Your task to perform on an android device: turn off location Image 0: 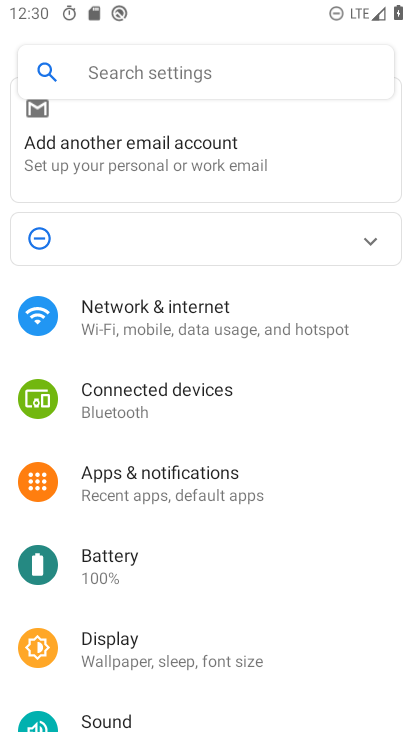
Step 0: drag from (238, 602) to (284, 288)
Your task to perform on an android device: turn off location Image 1: 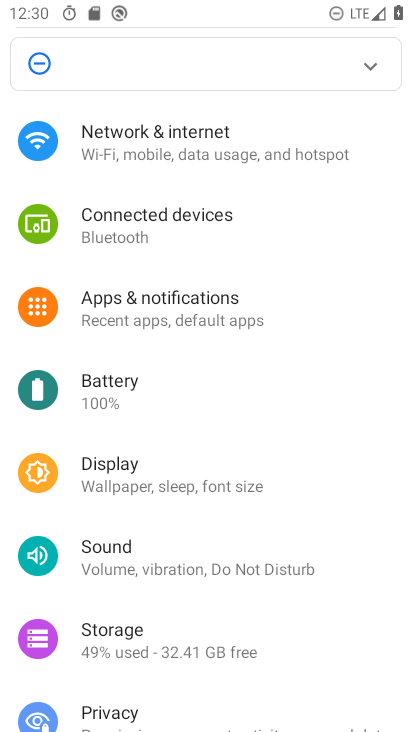
Step 1: drag from (181, 636) to (231, 357)
Your task to perform on an android device: turn off location Image 2: 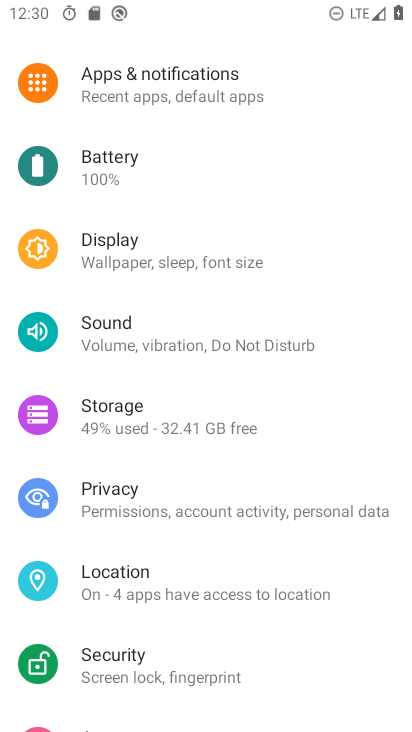
Step 2: click (159, 582)
Your task to perform on an android device: turn off location Image 3: 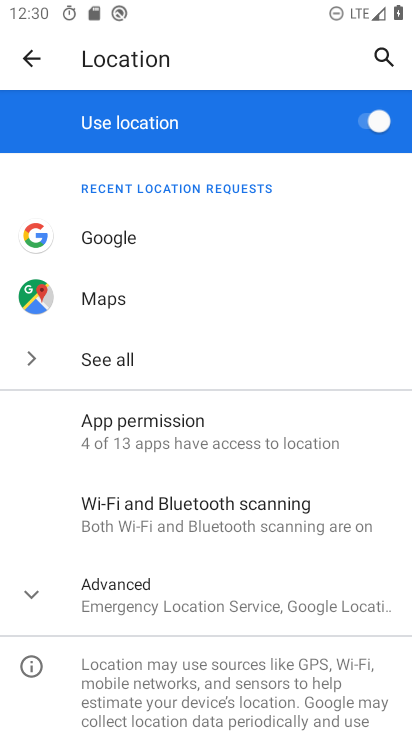
Step 3: click (370, 121)
Your task to perform on an android device: turn off location Image 4: 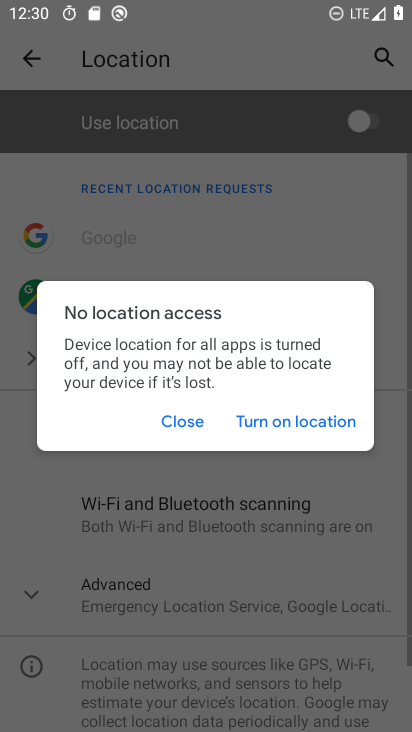
Step 4: task complete